Your task to perform on an android device: Check the weather Image 0: 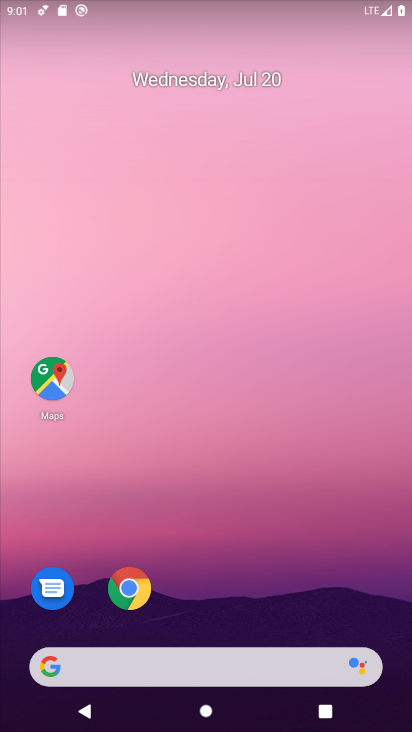
Step 0: press home button
Your task to perform on an android device: Check the weather Image 1: 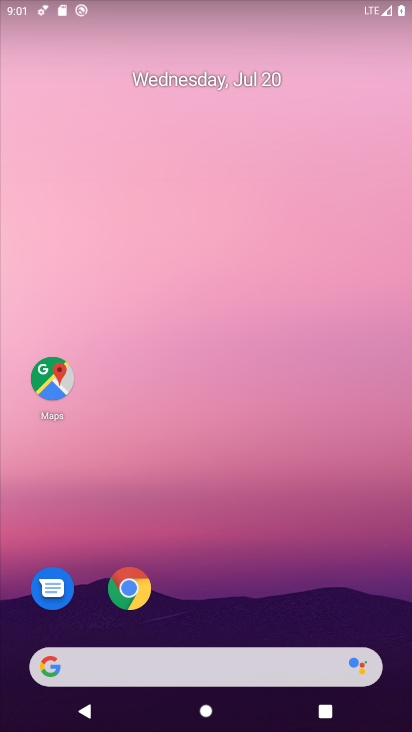
Step 1: drag from (16, 293) to (379, 325)
Your task to perform on an android device: Check the weather Image 2: 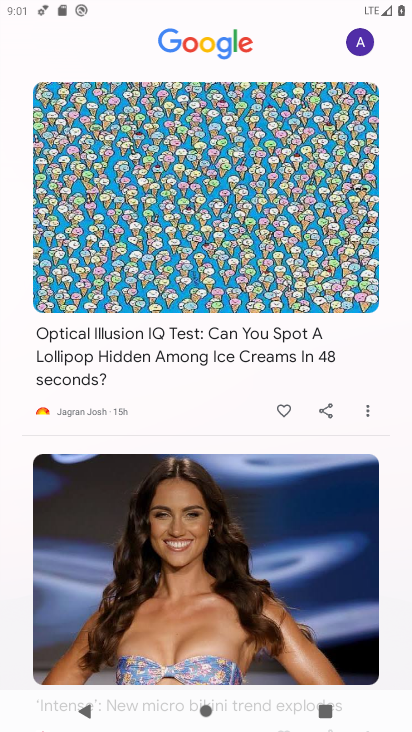
Step 2: press back button
Your task to perform on an android device: Check the weather Image 3: 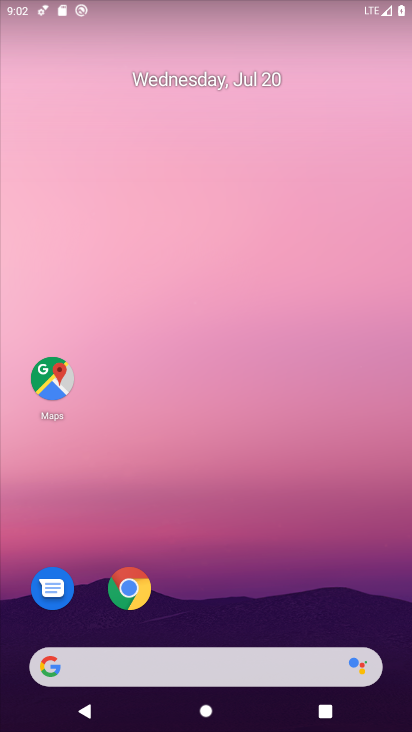
Step 3: click (170, 661)
Your task to perform on an android device: Check the weather Image 4: 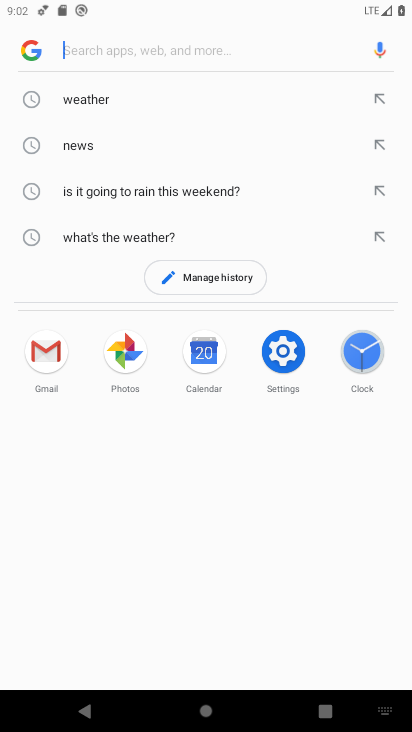
Step 4: click (118, 95)
Your task to perform on an android device: Check the weather Image 5: 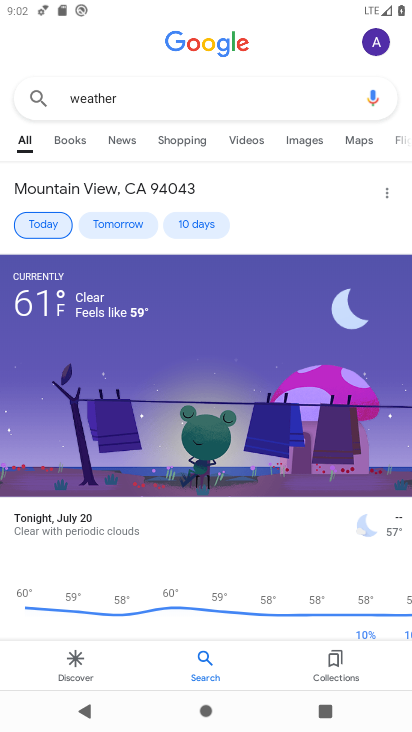
Step 5: task complete